Your task to perform on an android device: toggle javascript in the chrome app Image 0: 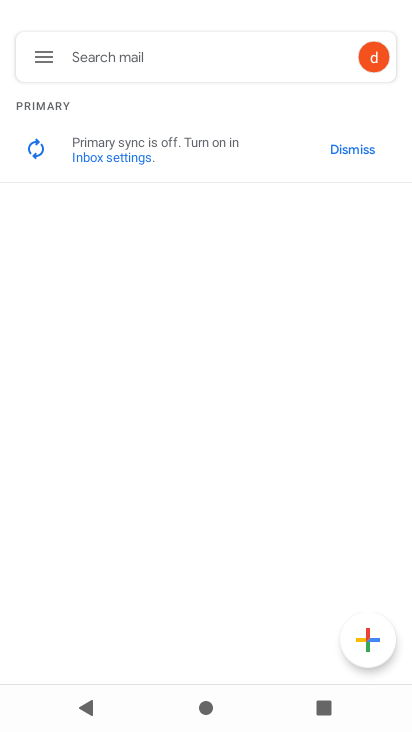
Step 0: click (129, 570)
Your task to perform on an android device: toggle javascript in the chrome app Image 1: 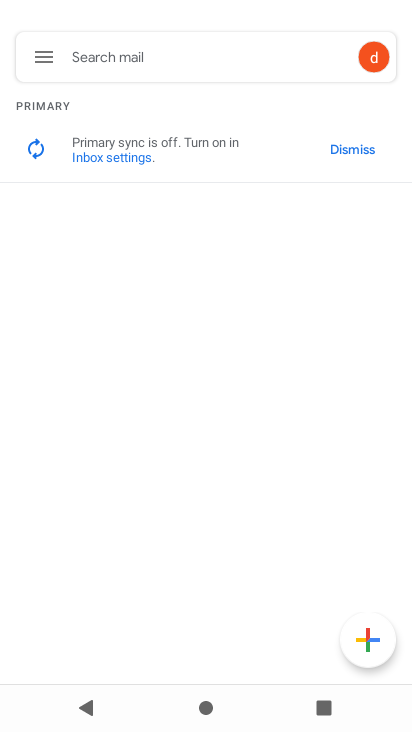
Step 1: press home button
Your task to perform on an android device: toggle javascript in the chrome app Image 2: 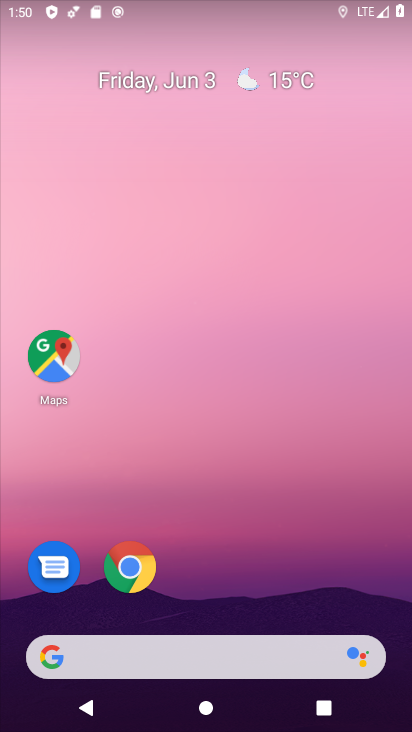
Step 2: click (372, 703)
Your task to perform on an android device: toggle javascript in the chrome app Image 3: 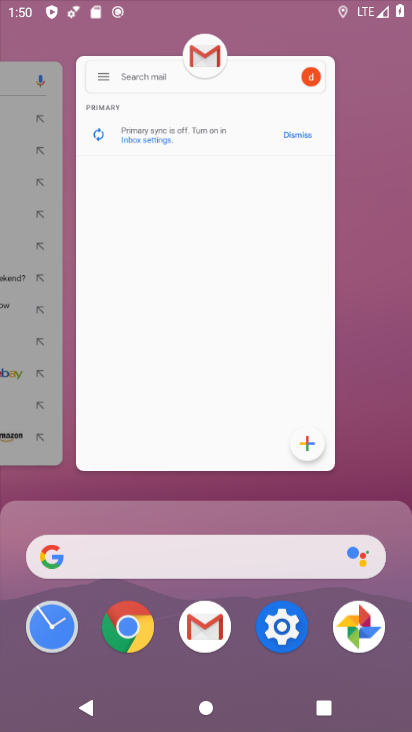
Step 3: press home button
Your task to perform on an android device: toggle javascript in the chrome app Image 4: 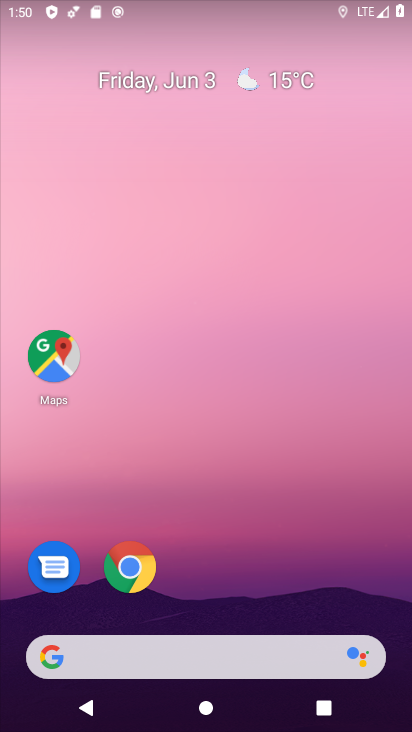
Step 4: click (137, 568)
Your task to perform on an android device: toggle javascript in the chrome app Image 5: 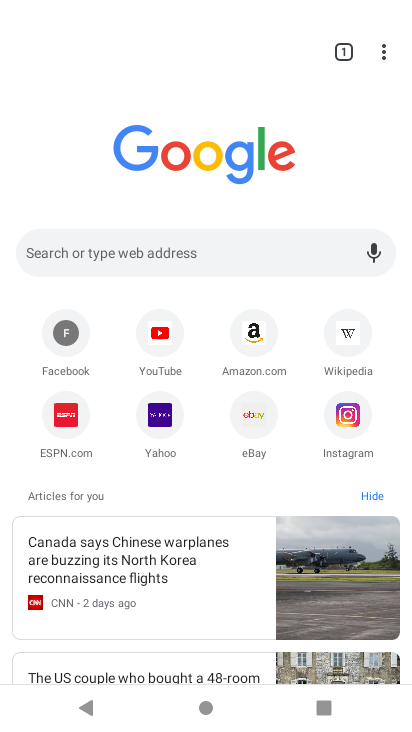
Step 5: click (389, 50)
Your task to perform on an android device: toggle javascript in the chrome app Image 6: 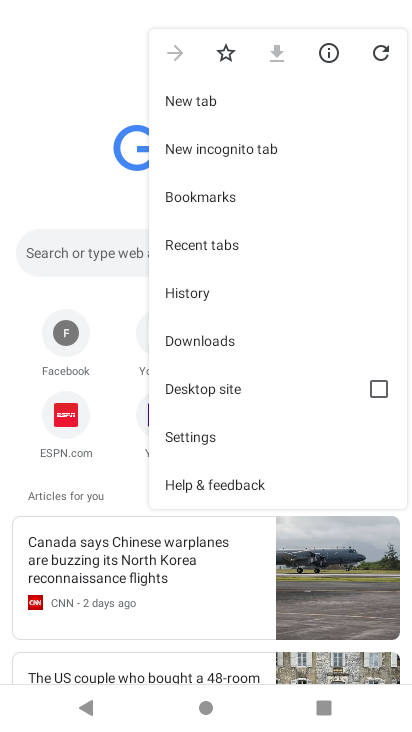
Step 6: click (201, 440)
Your task to perform on an android device: toggle javascript in the chrome app Image 7: 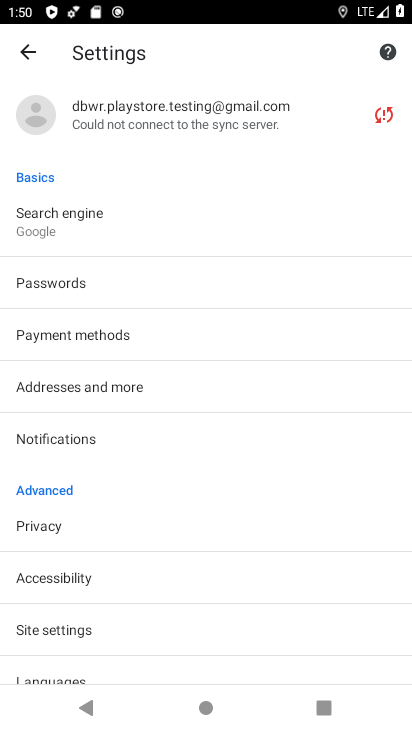
Step 7: click (59, 636)
Your task to perform on an android device: toggle javascript in the chrome app Image 8: 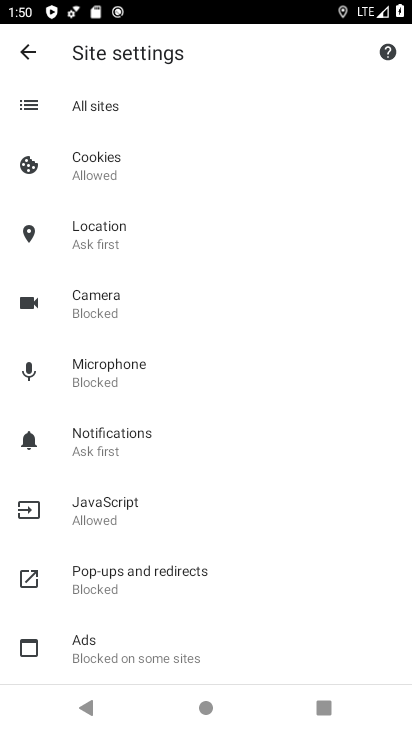
Step 8: click (128, 514)
Your task to perform on an android device: toggle javascript in the chrome app Image 9: 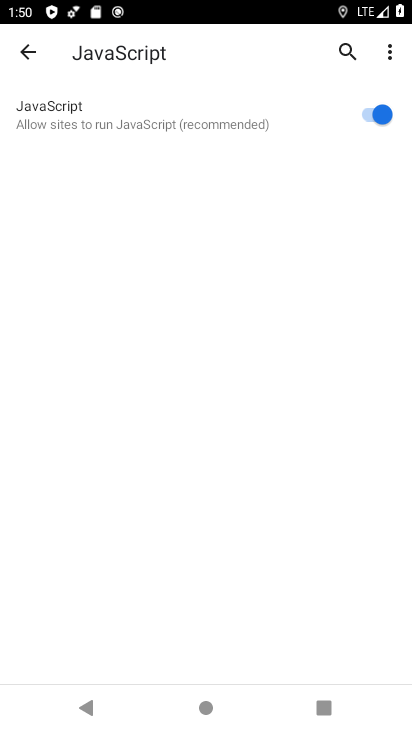
Step 9: click (369, 108)
Your task to perform on an android device: toggle javascript in the chrome app Image 10: 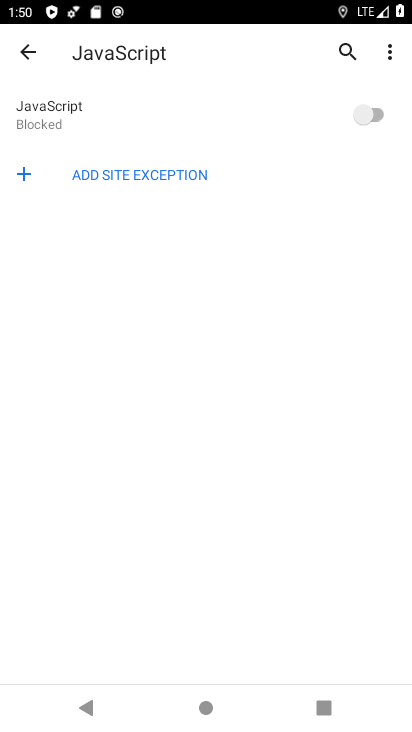
Step 10: task complete